Your task to perform on an android device: check the backup settings in the google photos Image 0: 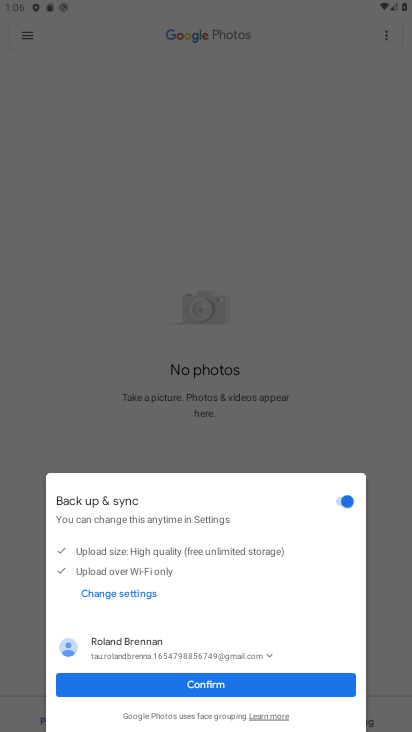
Step 0: press home button
Your task to perform on an android device: check the backup settings in the google photos Image 1: 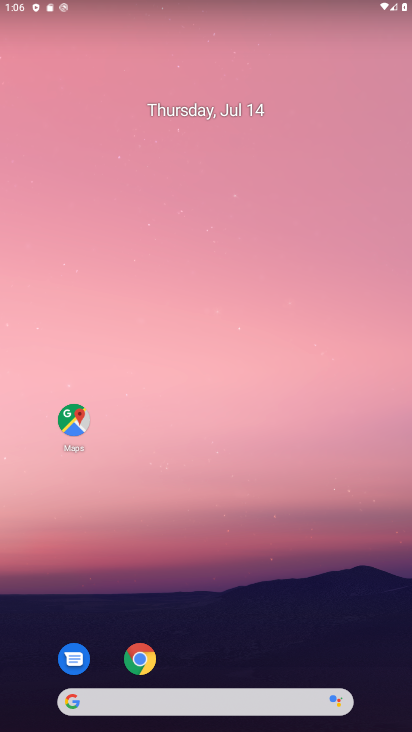
Step 1: drag from (192, 655) to (172, 221)
Your task to perform on an android device: check the backup settings in the google photos Image 2: 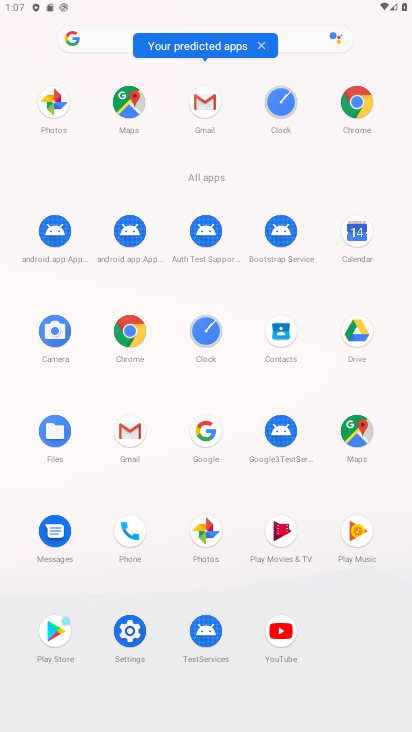
Step 2: click (204, 531)
Your task to perform on an android device: check the backup settings in the google photos Image 3: 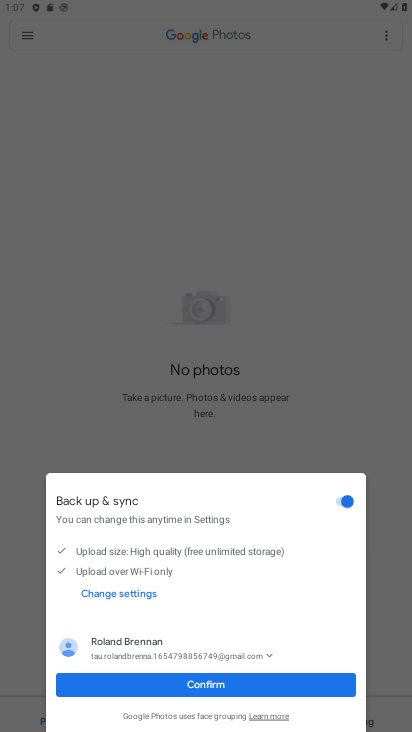
Step 3: click (301, 682)
Your task to perform on an android device: check the backup settings in the google photos Image 4: 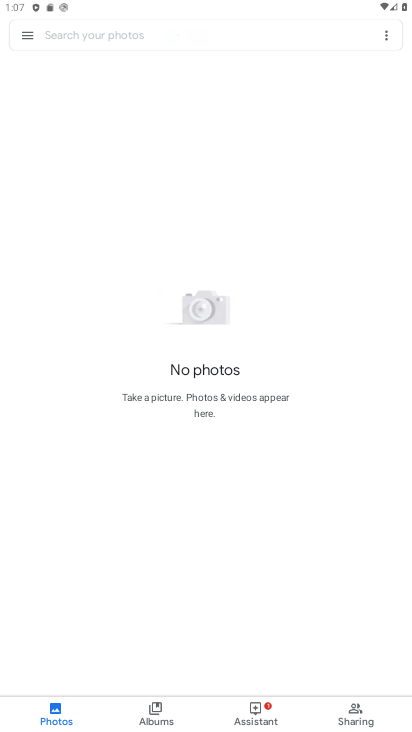
Step 4: click (34, 34)
Your task to perform on an android device: check the backup settings in the google photos Image 5: 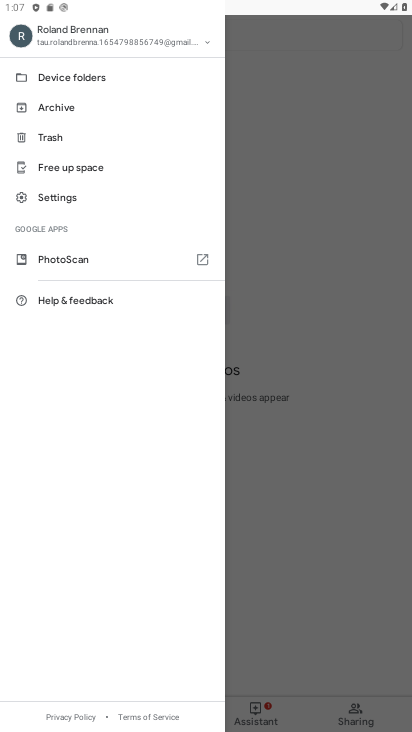
Step 5: click (56, 202)
Your task to perform on an android device: check the backup settings in the google photos Image 6: 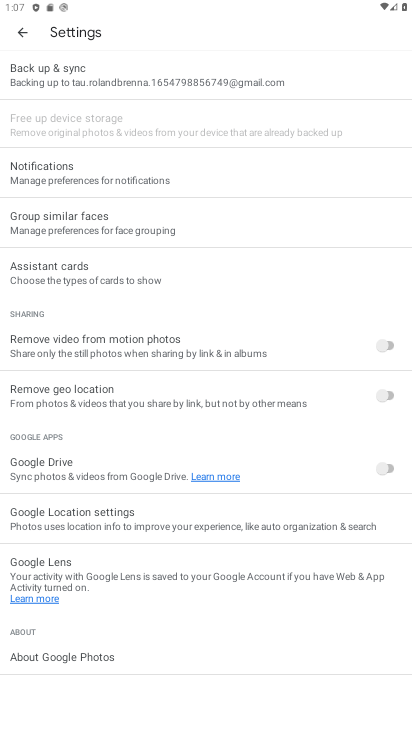
Step 6: click (75, 91)
Your task to perform on an android device: check the backup settings in the google photos Image 7: 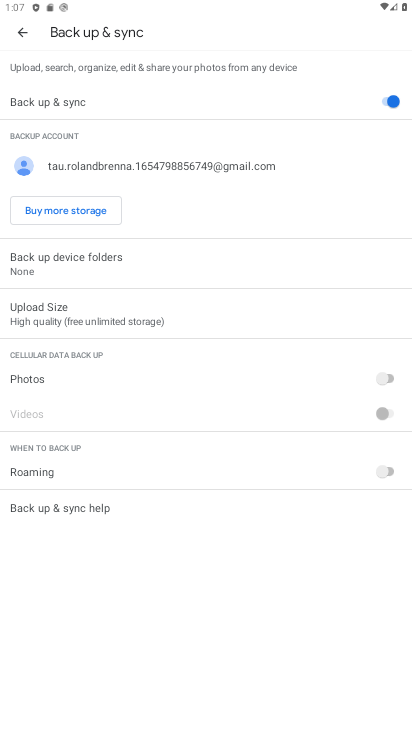
Step 7: task complete